Your task to perform on an android device: Open Google Chrome and open the bookmarks view Image 0: 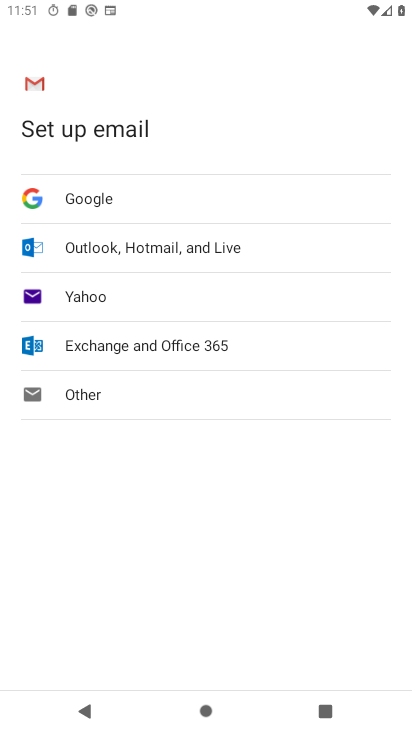
Step 0: press home button
Your task to perform on an android device: Open Google Chrome and open the bookmarks view Image 1: 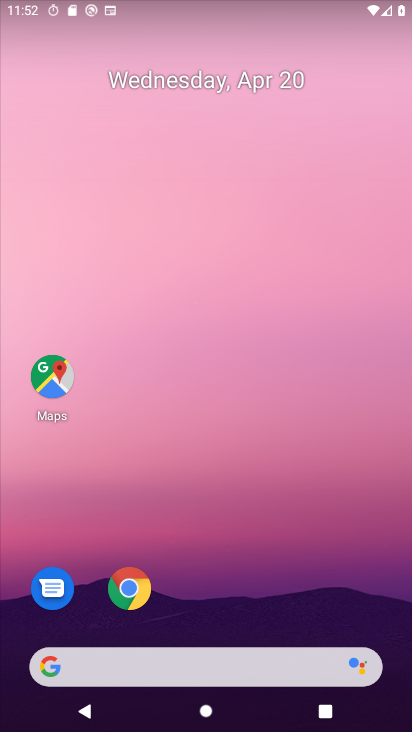
Step 1: click (125, 580)
Your task to perform on an android device: Open Google Chrome and open the bookmarks view Image 2: 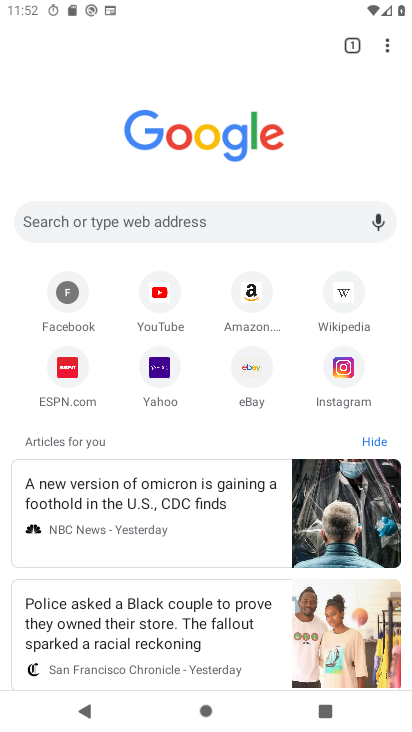
Step 2: click (386, 43)
Your task to perform on an android device: Open Google Chrome and open the bookmarks view Image 3: 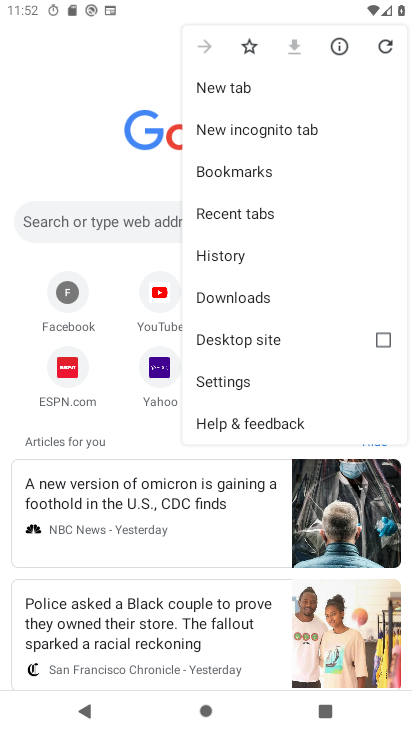
Step 3: click (272, 167)
Your task to perform on an android device: Open Google Chrome and open the bookmarks view Image 4: 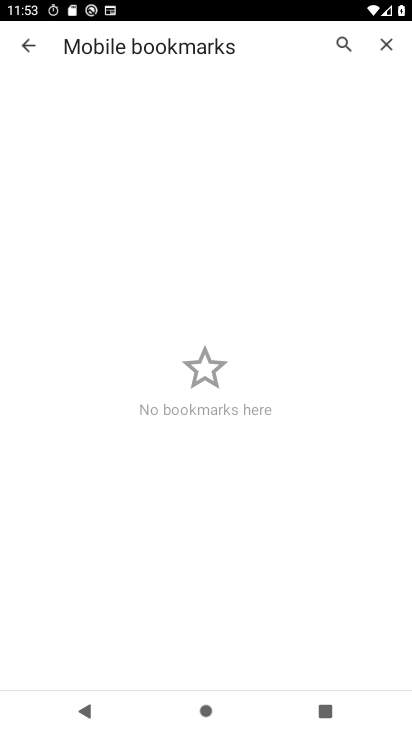
Step 4: task complete